Your task to perform on an android device: turn on data saver in the chrome app Image 0: 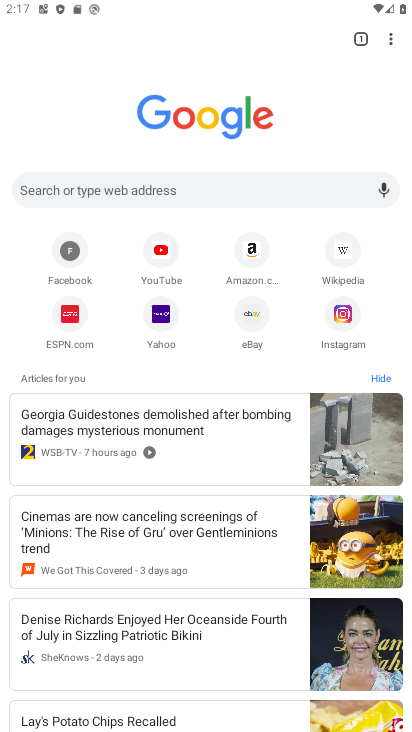
Step 0: press home button
Your task to perform on an android device: turn on data saver in the chrome app Image 1: 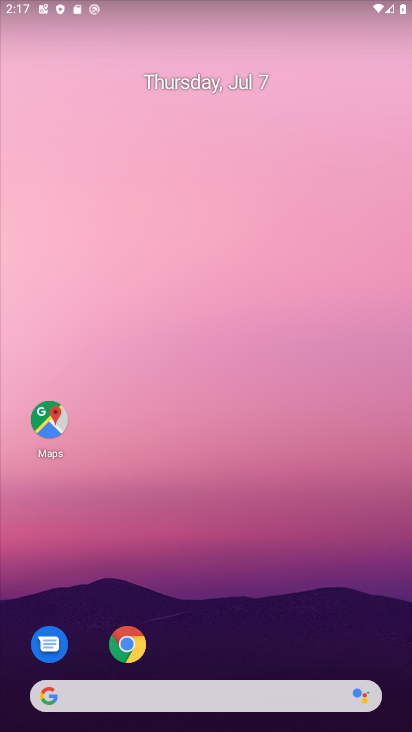
Step 1: click (124, 642)
Your task to perform on an android device: turn on data saver in the chrome app Image 2: 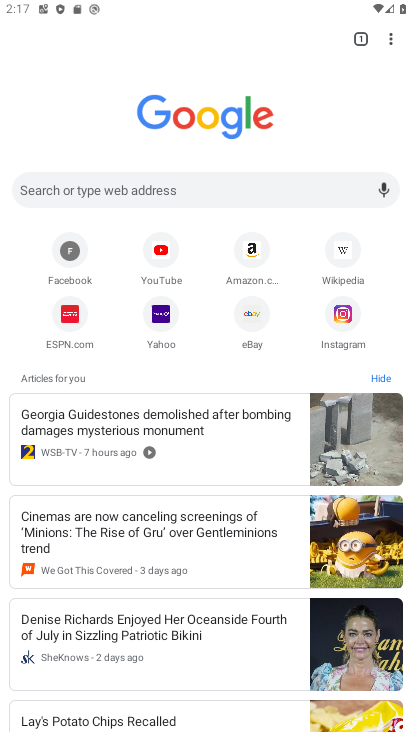
Step 2: drag from (388, 42) to (257, 335)
Your task to perform on an android device: turn on data saver in the chrome app Image 3: 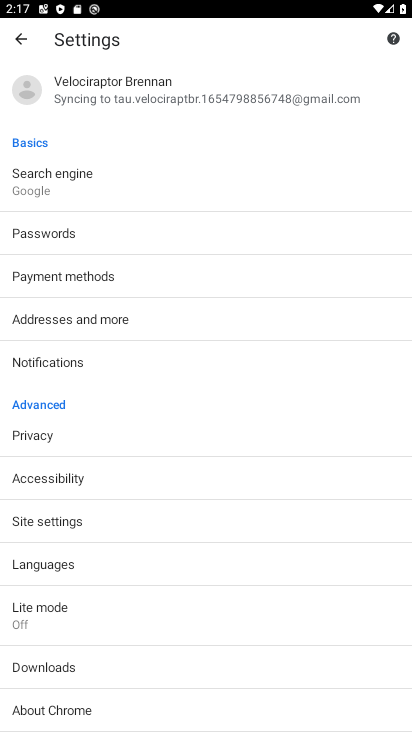
Step 3: click (50, 614)
Your task to perform on an android device: turn on data saver in the chrome app Image 4: 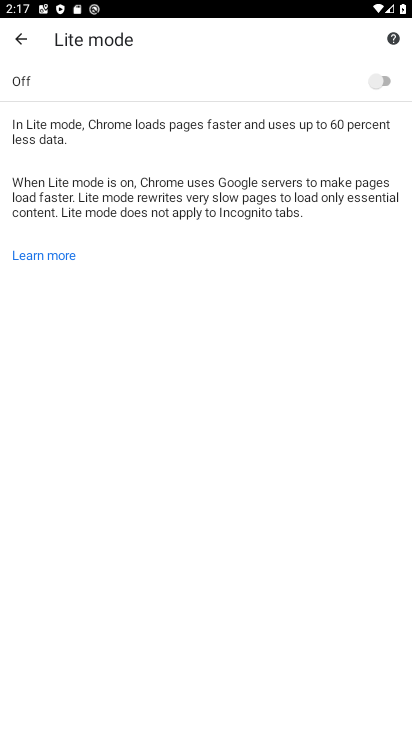
Step 4: click (374, 80)
Your task to perform on an android device: turn on data saver in the chrome app Image 5: 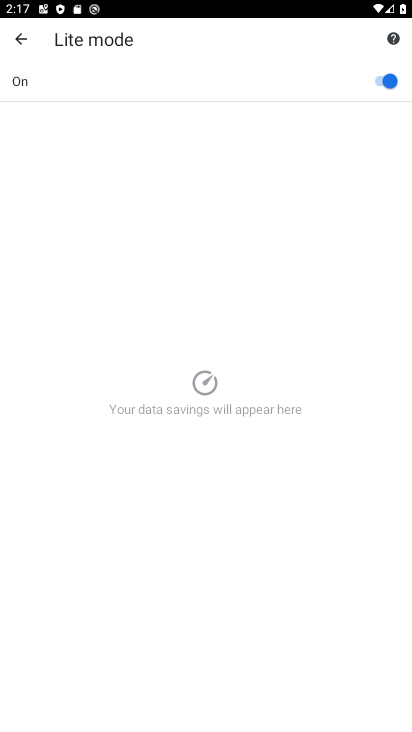
Step 5: task complete